Your task to perform on an android device: Search for the best value 4K TV on Best Buy Image 0: 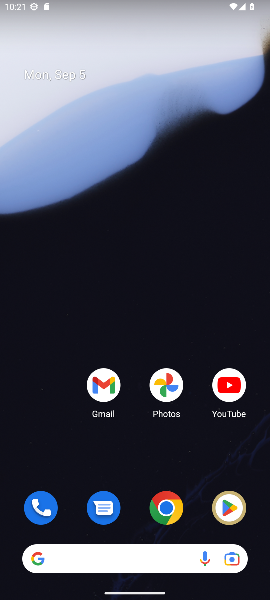
Step 0: drag from (196, 477) to (177, 1)
Your task to perform on an android device: Search for the best value 4K TV on Best Buy Image 1: 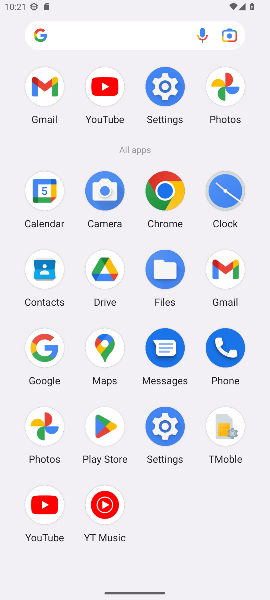
Step 1: click (167, 194)
Your task to perform on an android device: Search for the best value 4K TV on Best Buy Image 2: 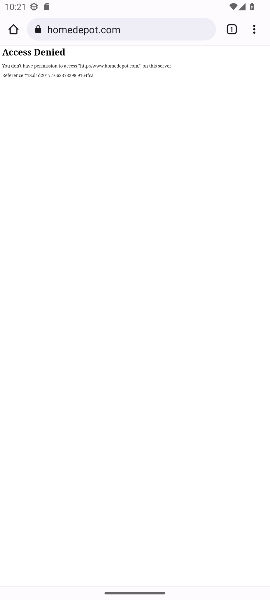
Step 2: click (112, 22)
Your task to perform on an android device: Search for the best value 4K TV on Best Buy Image 3: 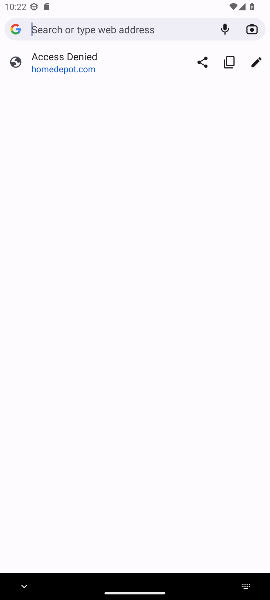
Step 3: type "best value 4K TV on Best Buy"
Your task to perform on an android device: Search for the best value 4K TV on Best Buy Image 4: 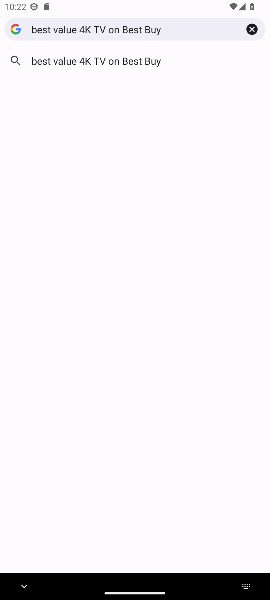
Step 4: press enter
Your task to perform on an android device: Search for the best value 4K TV on Best Buy Image 5: 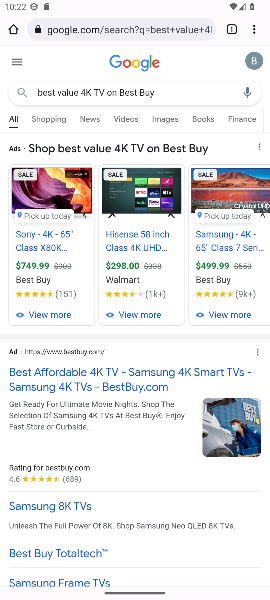
Step 5: drag from (125, 511) to (170, 139)
Your task to perform on an android device: Search for the best value 4K TV on Best Buy Image 6: 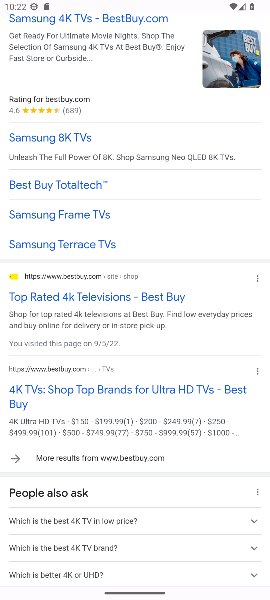
Step 6: drag from (182, 197) to (202, 231)
Your task to perform on an android device: Search for the best value 4K TV on Best Buy Image 7: 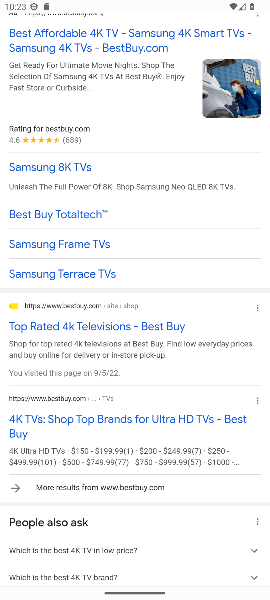
Step 7: click (118, 420)
Your task to perform on an android device: Search for the best value 4K TV on Best Buy Image 8: 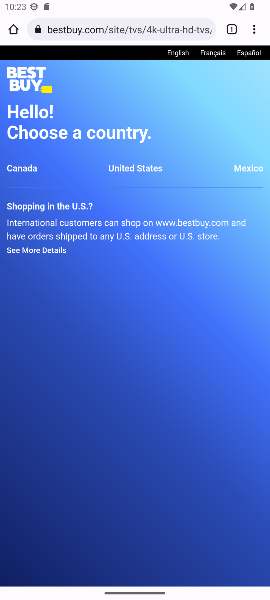
Step 8: click (132, 170)
Your task to perform on an android device: Search for the best value 4K TV on Best Buy Image 9: 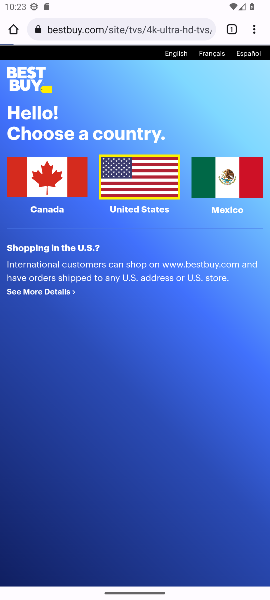
Step 9: click (156, 180)
Your task to perform on an android device: Search for the best value 4K TV on Best Buy Image 10: 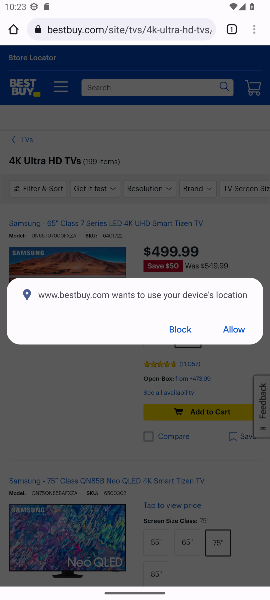
Step 10: click (183, 318)
Your task to perform on an android device: Search for the best value 4K TV on Best Buy Image 11: 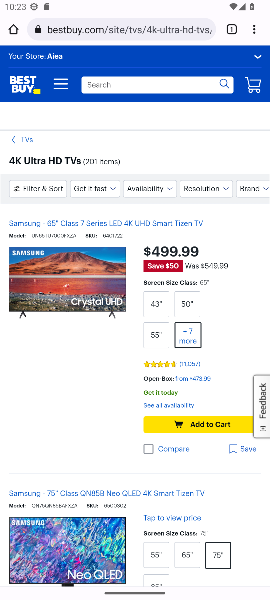
Step 11: task complete